Your task to perform on an android device: change the clock display to digital Image 0: 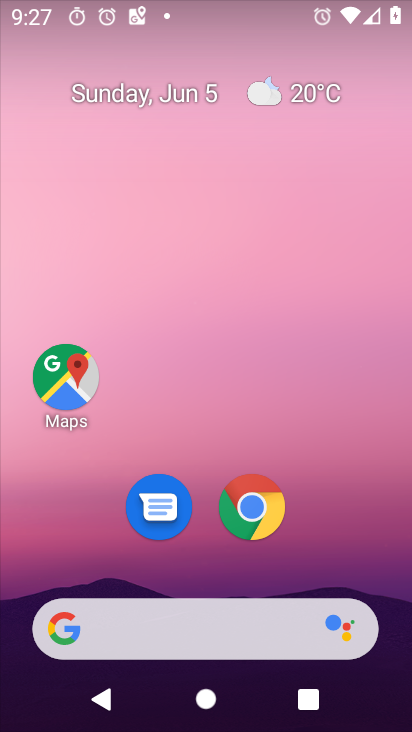
Step 0: drag from (333, 523) to (218, 30)
Your task to perform on an android device: change the clock display to digital Image 1: 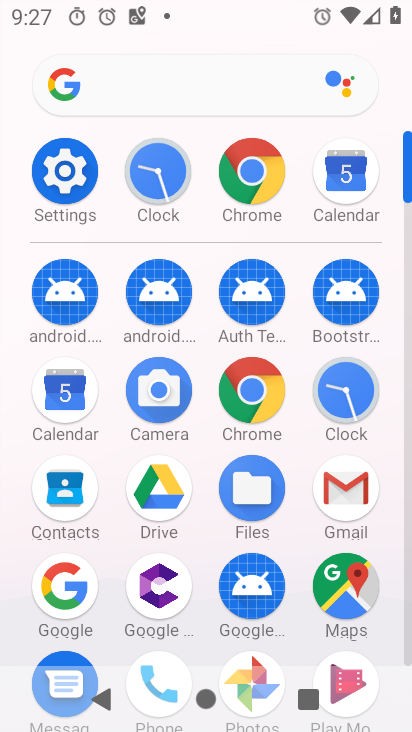
Step 1: drag from (15, 566) to (0, 244)
Your task to perform on an android device: change the clock display to digital Image 2: 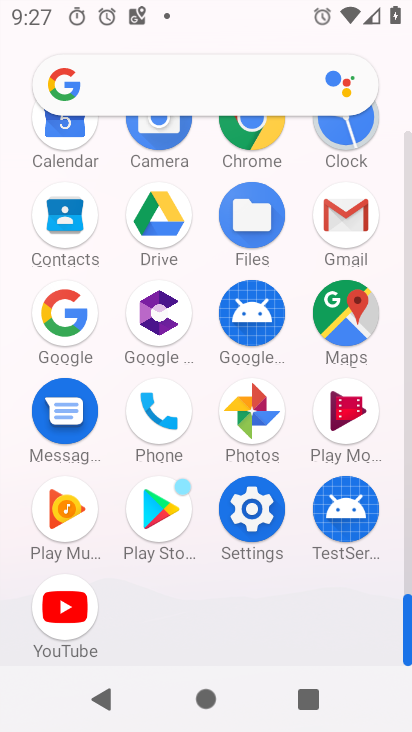
Step 2: click (346, 173)
Your task to perform on an android device: change the clock display to digital Image 3: 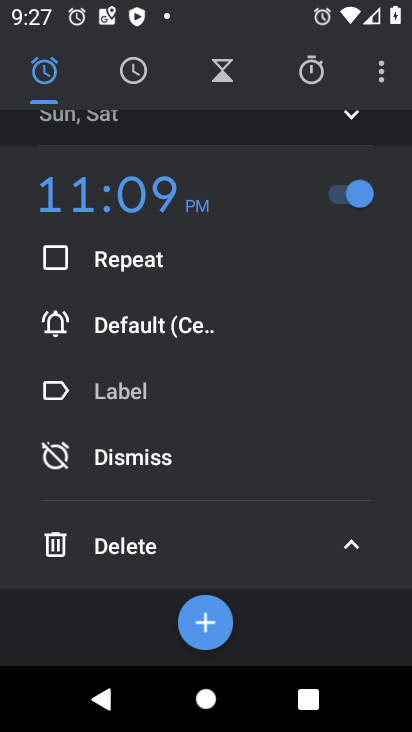
Step 3: drag from (374, 63) to (294, 146)
Your task to perform on an android device: change the clock display to digital Image 4: 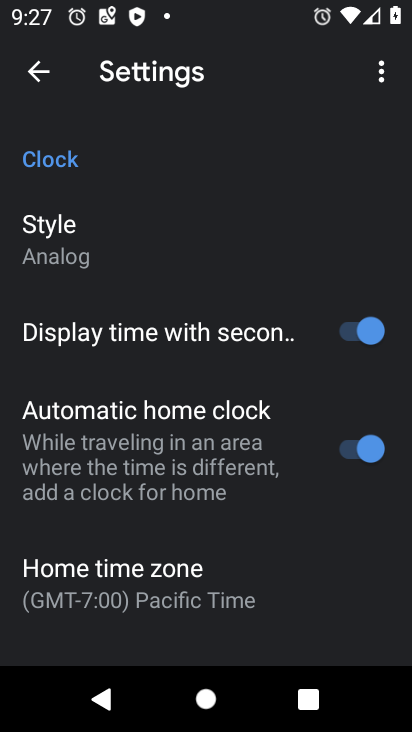
Step 4: click (110, 244)
Your task to perform on an android device: change the clock display to digital Image 5: 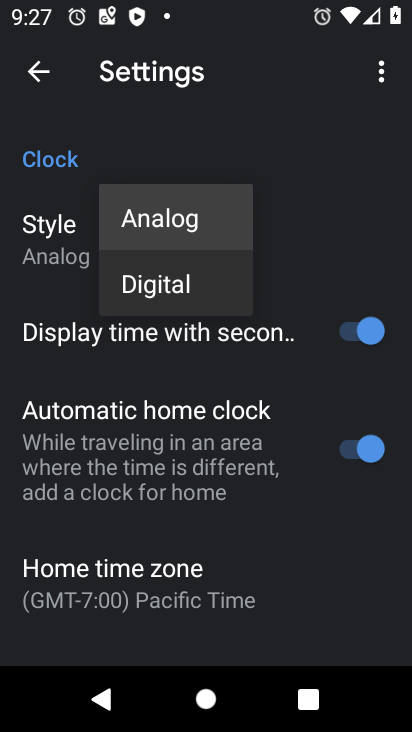
Step 5: click (127, 273)
Your task to perform on an android device: change the clock display to digital Image 6: 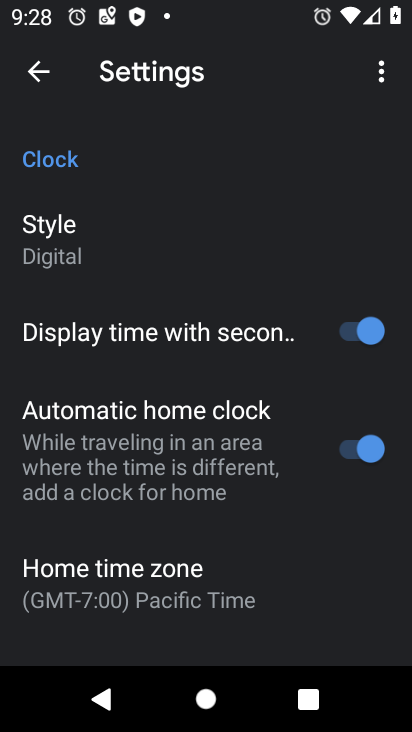
Step 6: task complete